Your task to perform on an android device: change the clock display to show seconds Image 0: 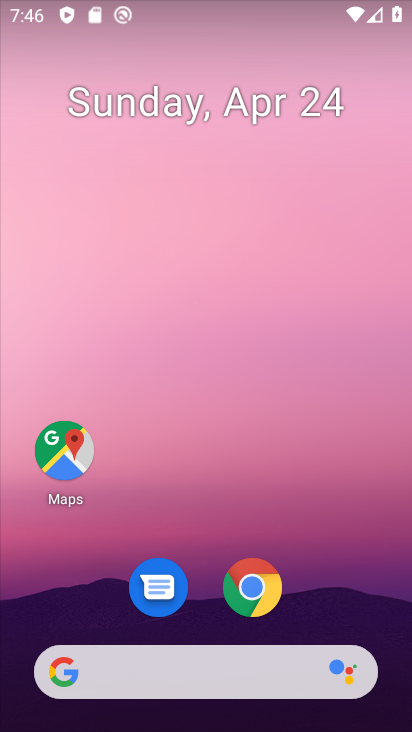
Step 0: press home button
Your task to perform on an android device: change the clock display to show seconds Image 1: 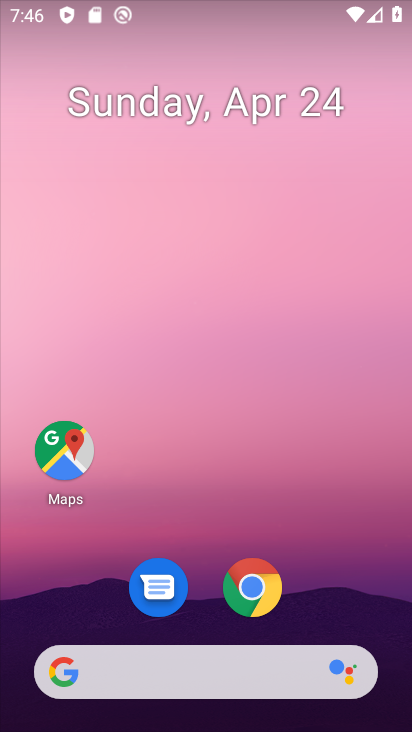
Step 1: drag from (357, 618) to (356, 162)
Your task to perform on an android device: change the clock display to show seconds Image 2: 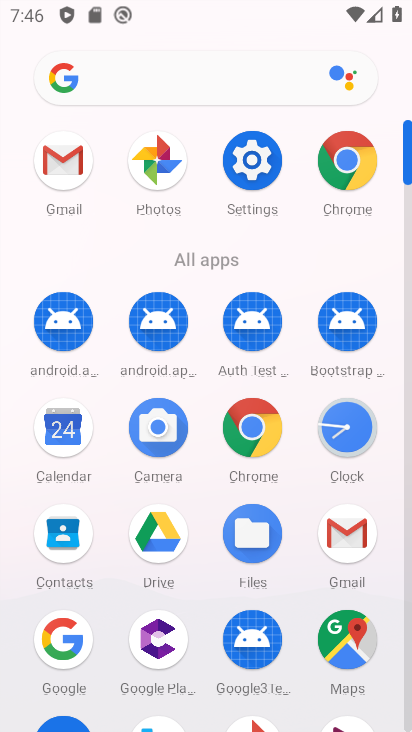
Step 2: click (352, 430)
Your task to perform on an android device: change the clock display to show seconds Image 3: 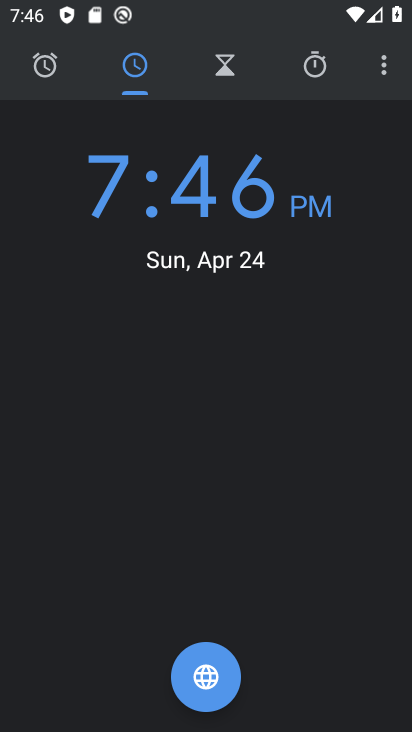
Step 3: click (386, 58)
Your task to perform on an android device: change the clock display to show seconds Image 4: 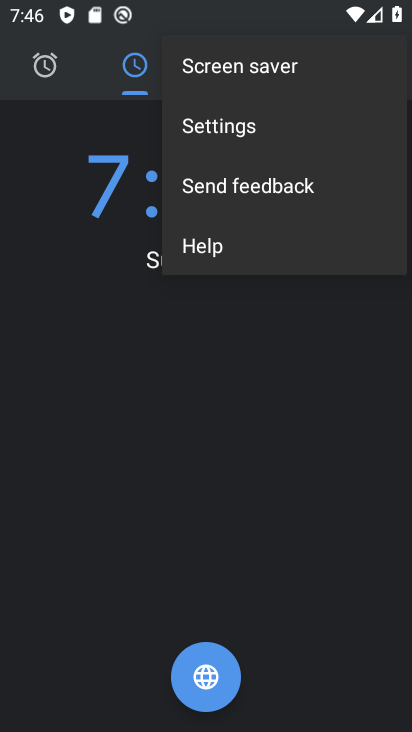
Step 4: click (288, 129)
Your task to perform on an android device: change the clock display to show seconds Image 5: 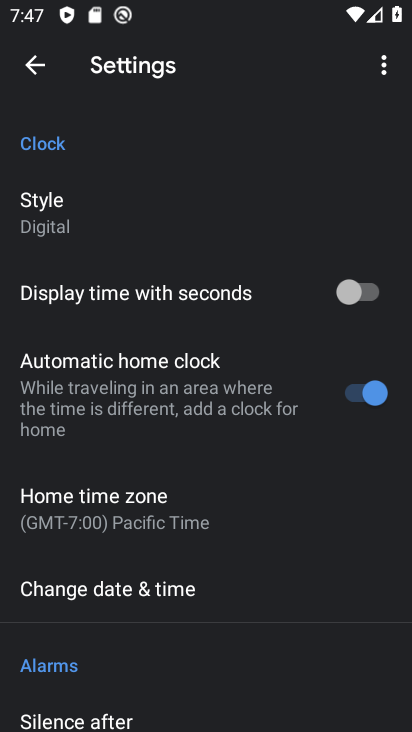
Step 5: click (374, 298)
Your task to perform on an android device: change the clock display to show seconds Image 6: 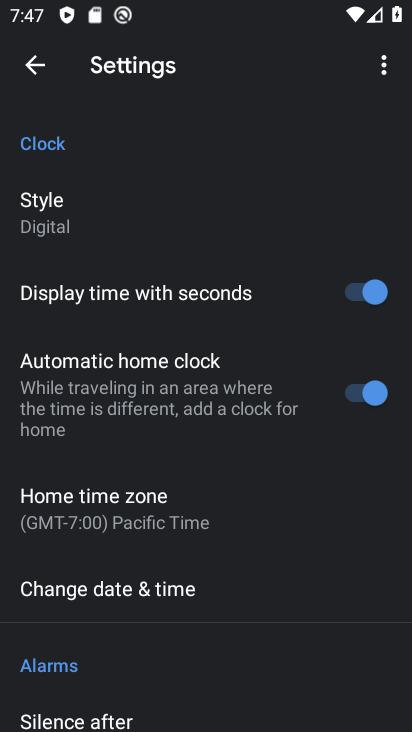
Step 6: task complete